Your task to perform on an android device: toggle priority inbox in the gmail app Image 0: 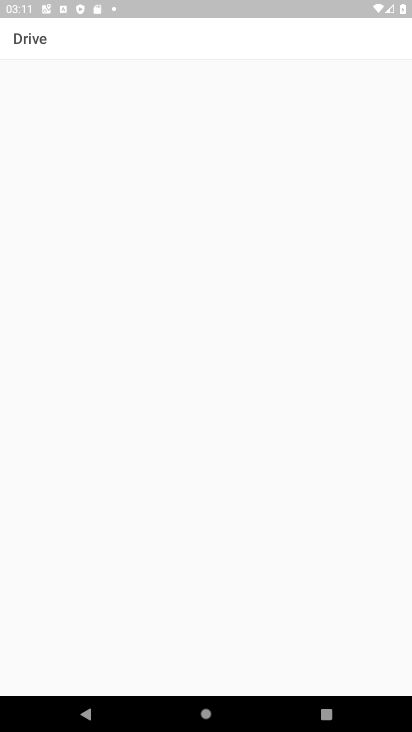
Step 0: drag from (218, 652) to (150, 168)
Your task to perform on an android device: toggle priority inbox in the gmail app Image 1: 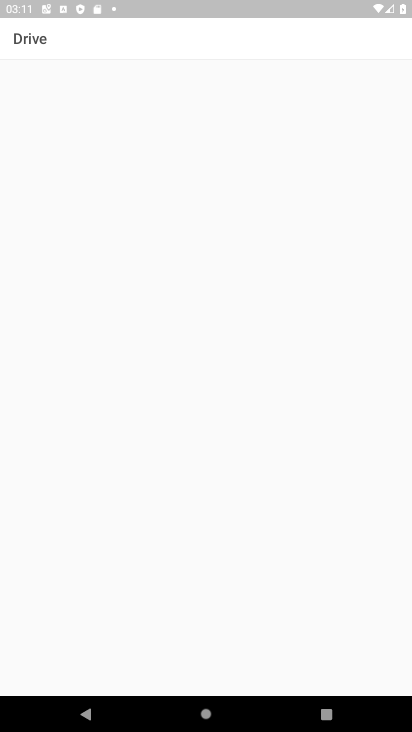
Step 1: press home button
Your task to perform on an android device: toggle priority inbox in the gmail app Image 2: 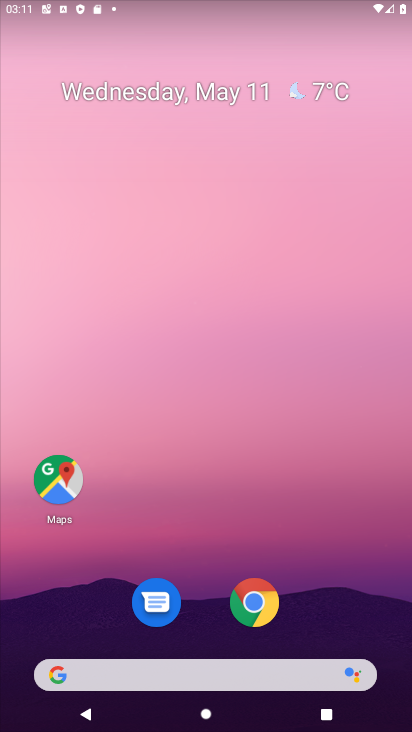
Step 2: drag from (341, 646) to (262, 284)
Your task to perform on an android device: toggle priority inbox in the gmail app Image 3: 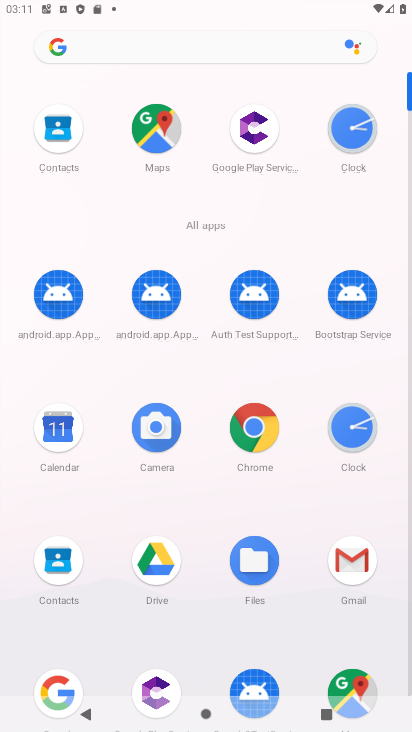
Step 3: drag from (194, 538) to (164, 254)
Your task to perform on an android device: toggle priority inbox in the gmail app Image 4: 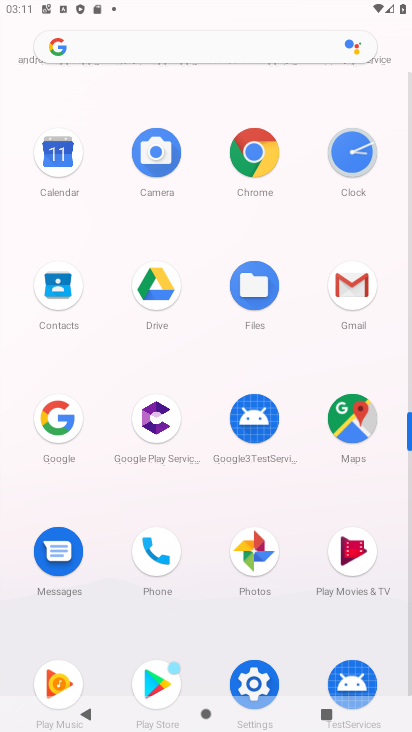
Step 4: click (248, 686)
Your task to perform on an android device: toggle priority inbox in the gmail app Image 5: 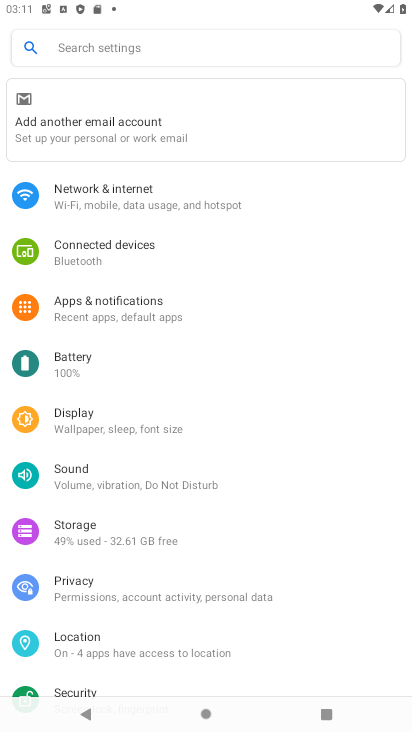
Step 5: press home button
Your task to perform on an android device: toggle priority inbox in the gmail app Image 6: 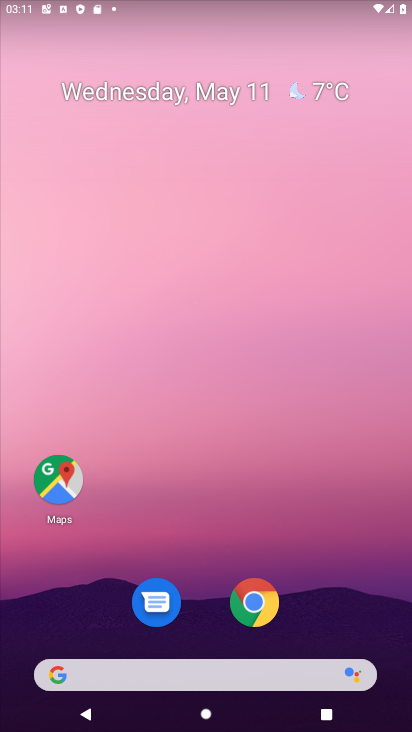
Step 6: drag from (42, 653) to (68, 508)
Your task to perform on an android device: toggle priority inbox in the gmail app Image 7: 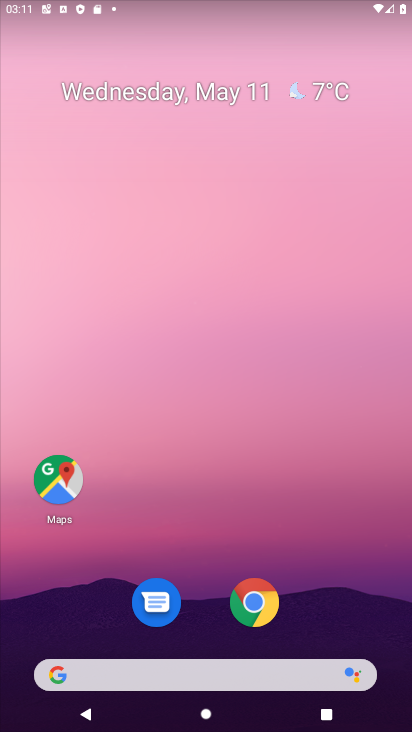
Step 7: drag from (179, 568) to (179, 387)
Your task to perform on an android device: toggle priority inbox in the gmail app Image 8: 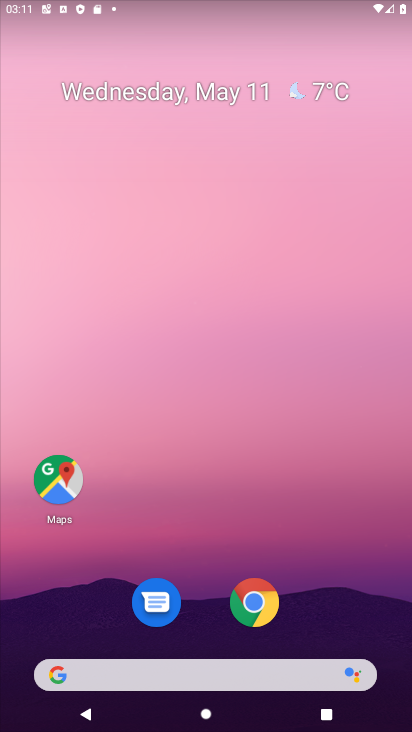
Step 8: drag from (191, 617) to (159, 76)
Your task to perform on an android device: toggle priority inbox in the gmail app Image 9: 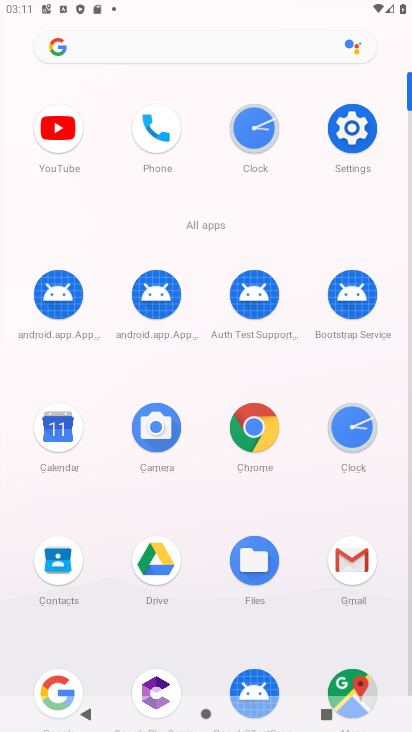
Step 9: click (365, 551)
Your task to perform on an android device: toggle priority inbox in the gmail app Image 10: 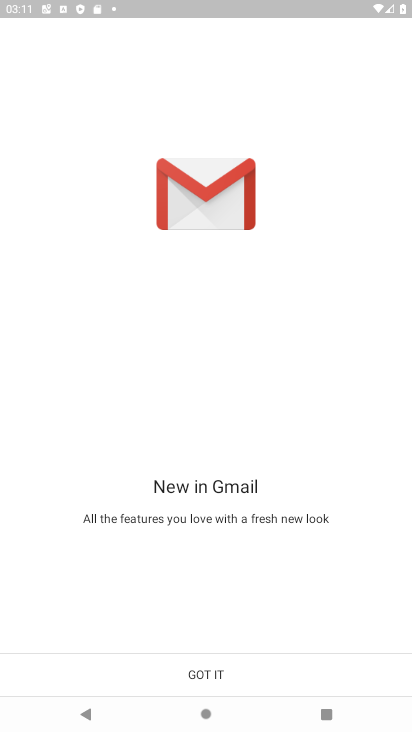
Step 10: task complete